Your task to perform on an android device: Open display settings Image 0: 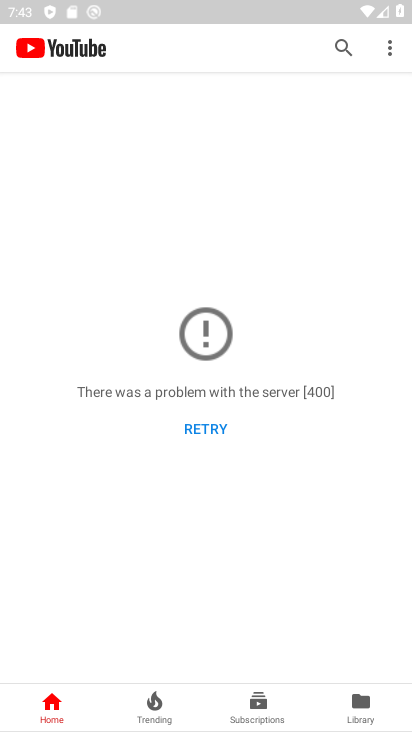
Step 0: press home button
Your task to perform on an android device: Open display settings Image 1: 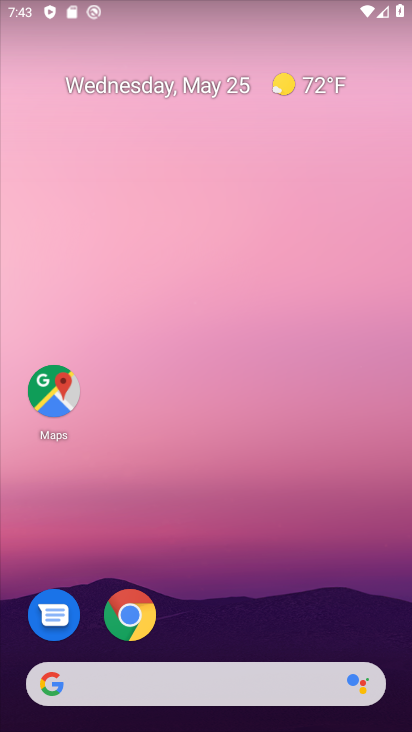
Step 1: drag from (236, 564) to (254, 26)
Your task to perform on an android device: Open display settings Image 2: 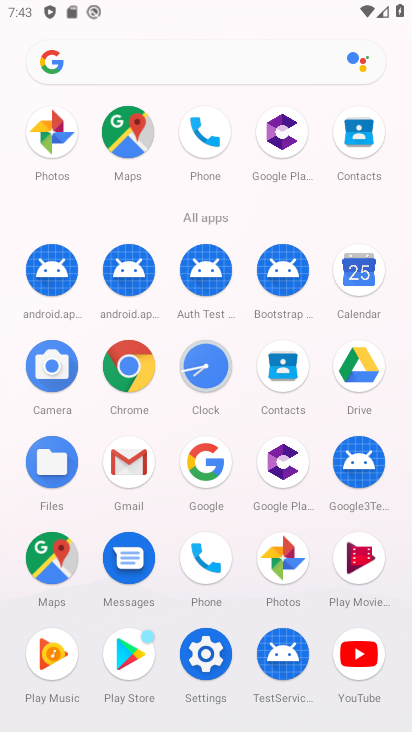
Step 2: click (201, 643)
Your task to perform on an android device: Open display settings Image 3: 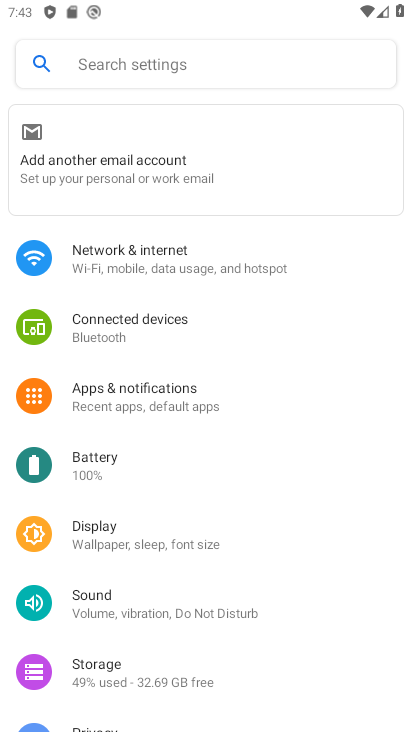
Step 3: click (173, 545)
Your task to perform on an android device: Open display settings Image 4: 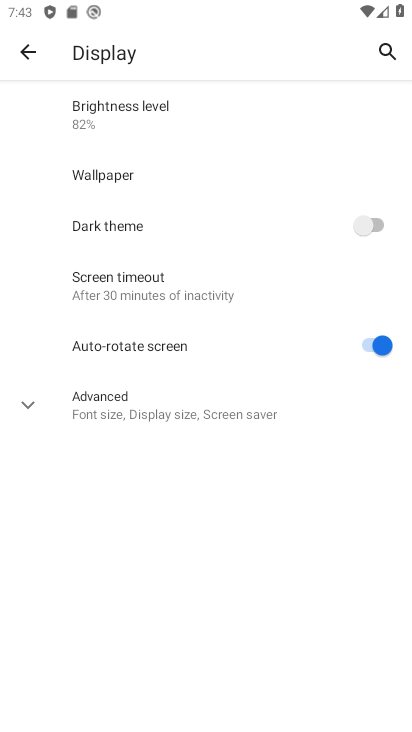
Step 4: click (25, 400)
Your task to perform on an android device: Open display settings Image 5: 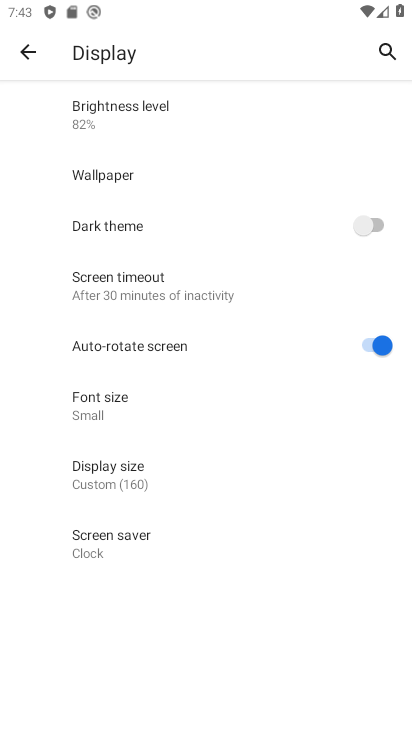
Step 5: click (104, 405)
Your task to perform on an android device: Open display settings Image 6: 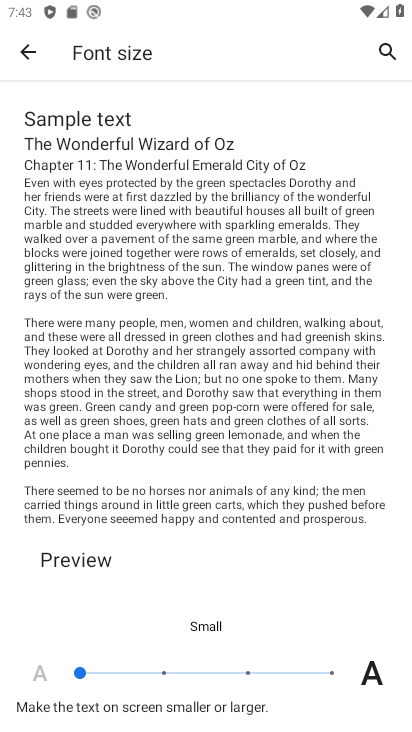
Step 6: click (157, 666)
Your task to perform on an android device: Open display settings Image 7: 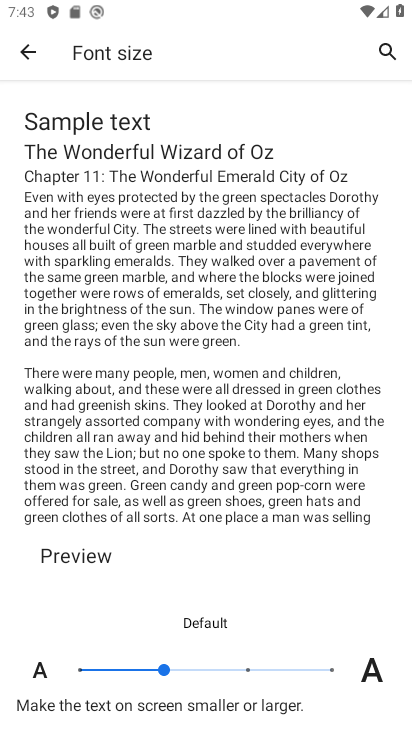
Step 7: click (245, 664)
Your task to perform on an android device: Open display settings Image 8: 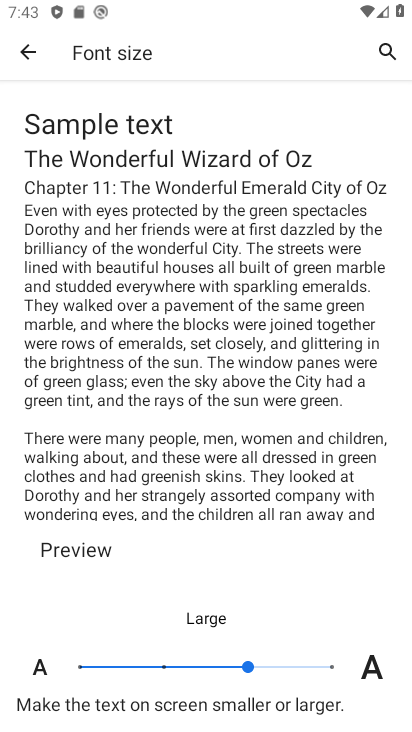
Step 8: click (23, 39)
Your task to perform on an android device: Open display settings Image 9: 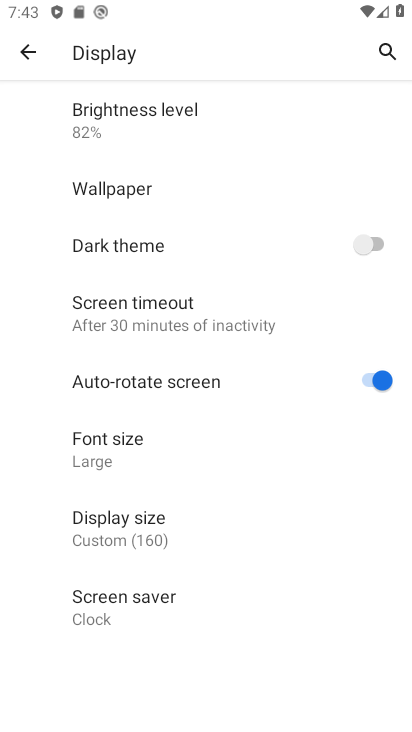
Step 9: click (23, 41)
Your task to perform on an android device: Open display settings Image 10: 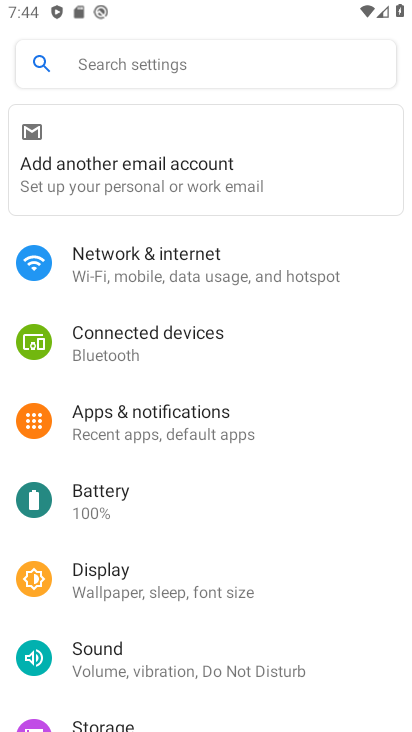
Step 10: task complete